Your task to perform on an android device: turn off improve location accuracy Image 0: 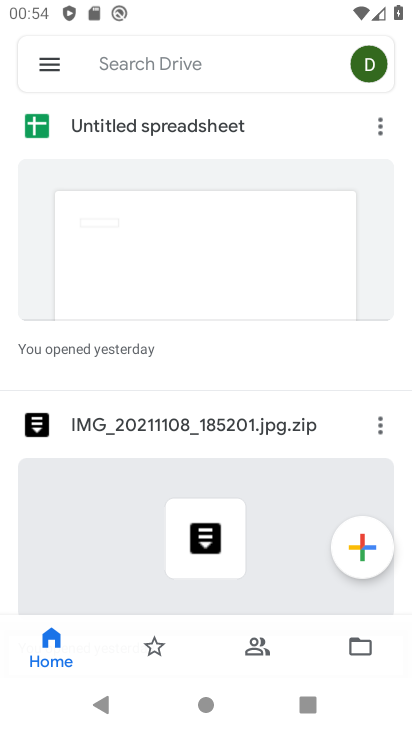
Step 0: press home button
Your task to perform on an android device: turn off improve location accuracy Image 1: 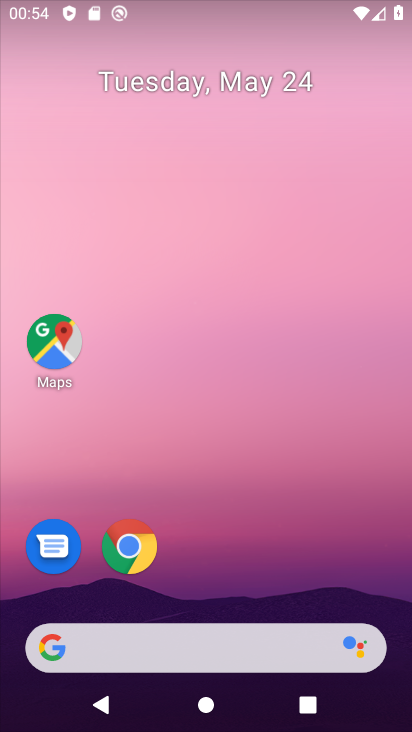
Step 1: drag from (326, 624) to (326, 70)
Your task to perform on an android device: turn off improve location accuracy Image 2: 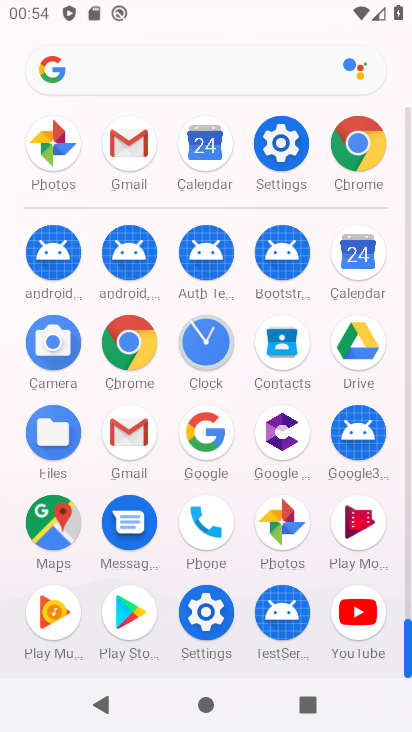
Step 2: click (282, 145)
Your task to perform on an android device: turn off improve location accuracy Image 3: 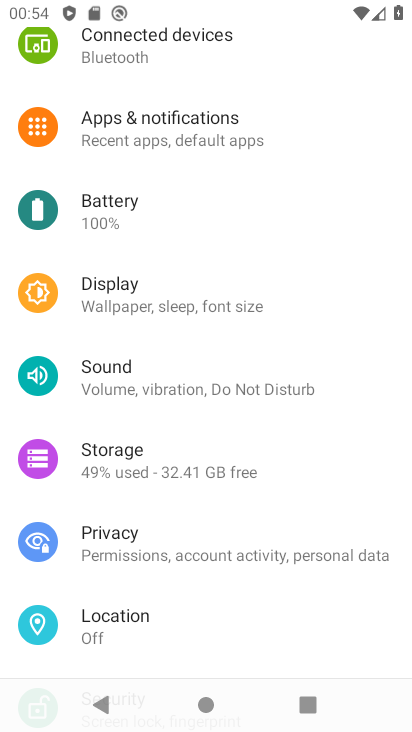
Step 3: click (244, 633)
Your task to perform on an android device: turn off improve location accuracy Image 4: 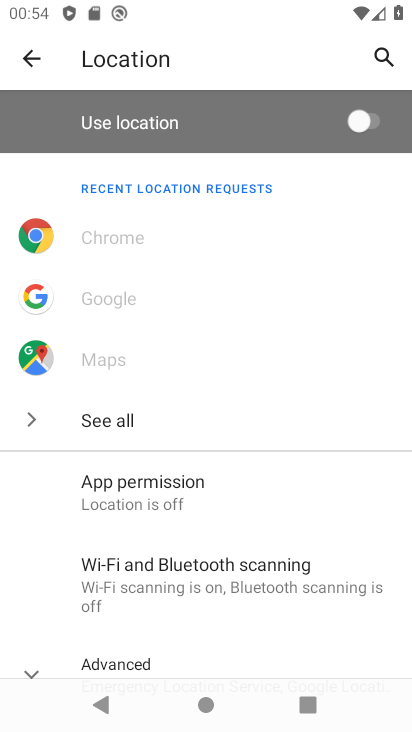
Step 4: drag from (301, 634) to (326, 257)
Your task to perform on an android device: turn off improve location accuracy Image 5: 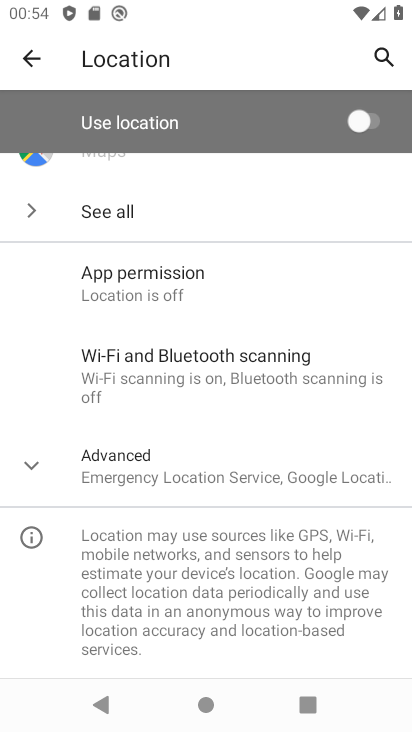
Step 5: click (210, 463)
Your task to perform on an android device: turn off improve location accuracy Image 6: 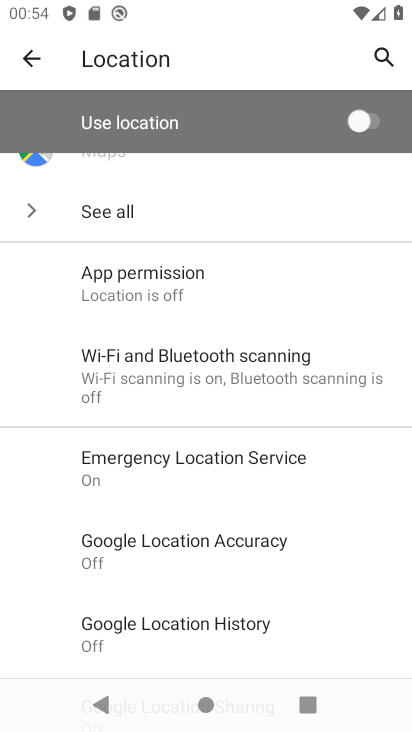
Step 6: click (259, 552)
Your task to perform on an android device: turn off improve location accuracy Image 7: 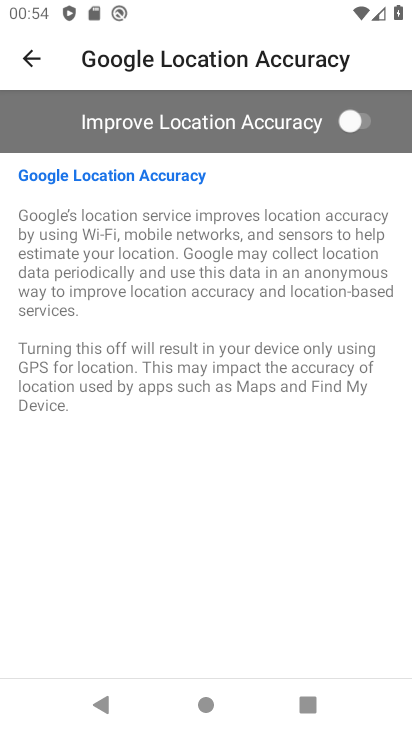
Step 7: task complete